Your task to perform on an android device: Search for seafood restaurants on Google Maps Image 0: 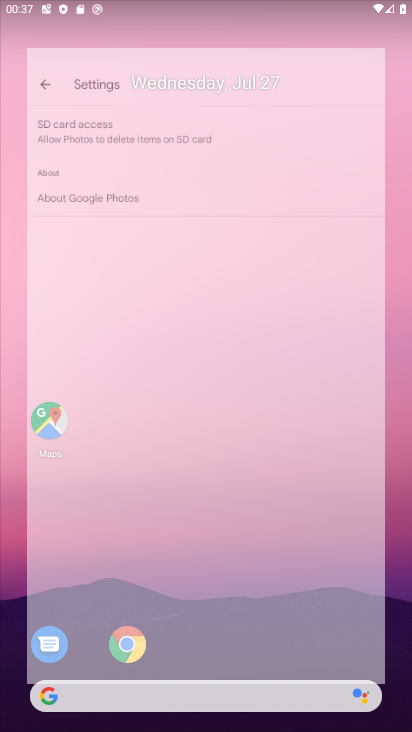
Step 0: drag from (223, 625) to (223, 392)
Your task to perform on an android device: Search for seafood restaurants on Google Maps Image 1: 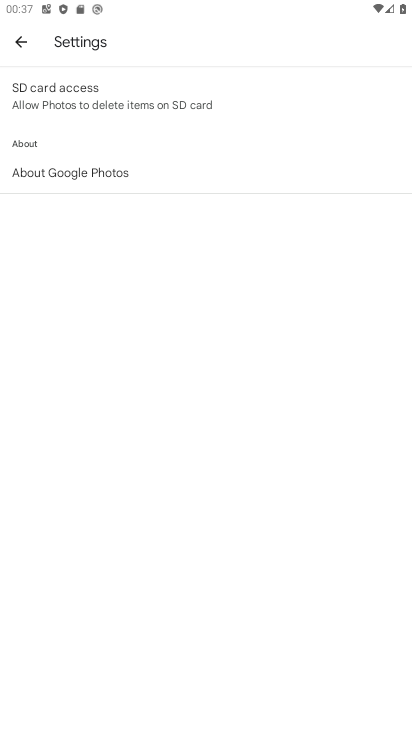
Step 1: click (19, 42)
Your task to perform on an android device: Search for seafood restaurants on Google Maps Image 2: 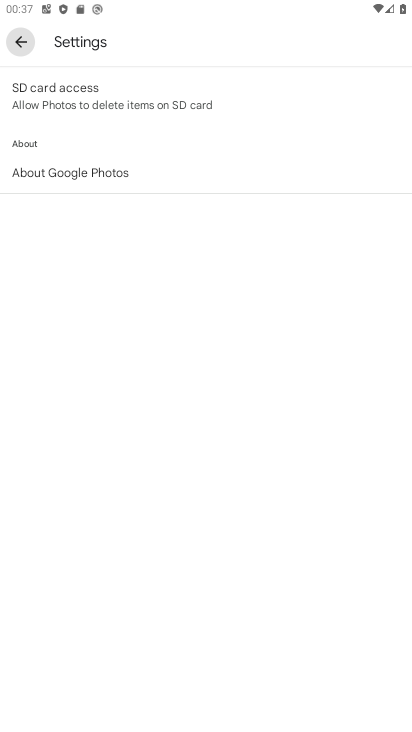
Step 2: click (19, 42)
Your task to perform on an android device: Search for seafood restaurants on Google Maps Image 3: 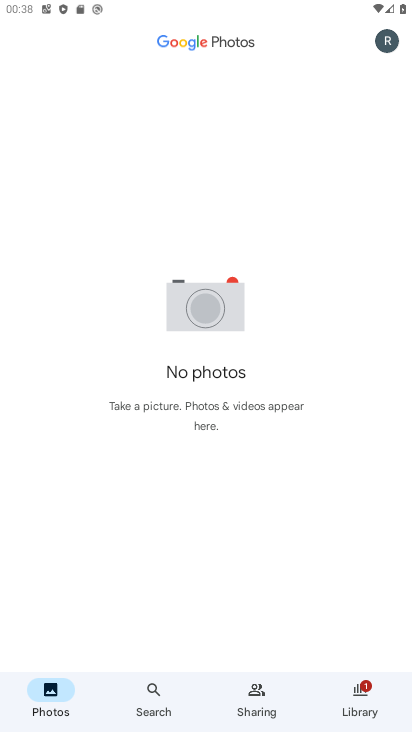
Step 3: press back button
Your task to perform on an android device: Search for seafood restaurants on Google Maps Image 4: 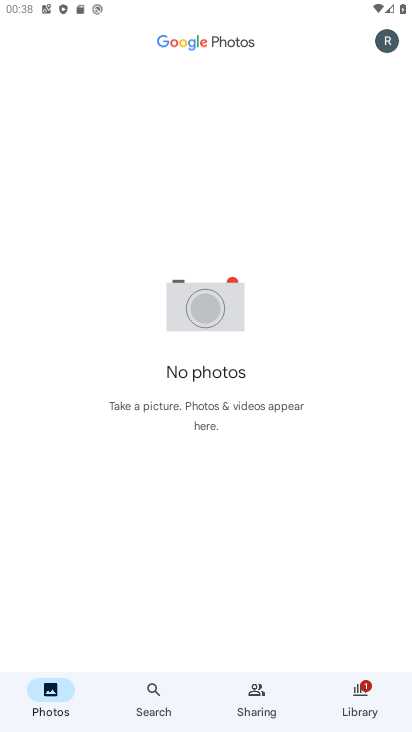
Step 4: press back button
Your task to perform on an android device: Search for seafood restaurants on Google Maps Image 5: 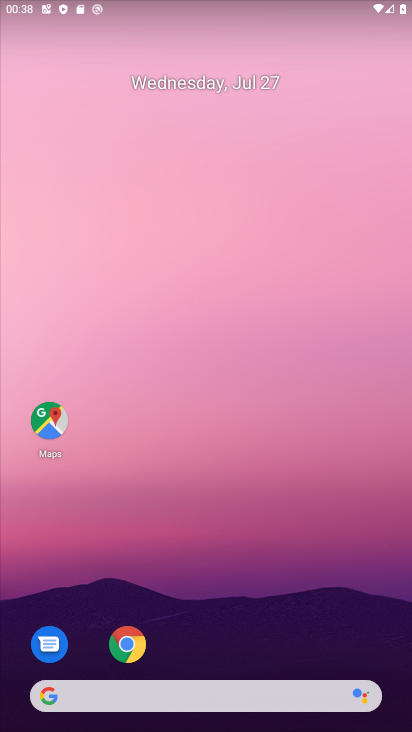
Step 5: drag from (244, 665) to (234, 14)
Your task to perform on an android device: Search for seafood restaurants on Google Maps Image 6: 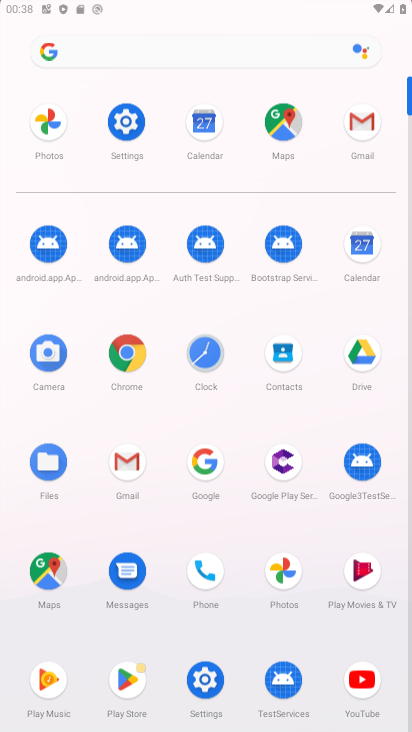
Step 6: drag from (216, 481) to (236, 114)
Your task to perform on an android device: Search for seafood restaurants on Google Maps Image 7: 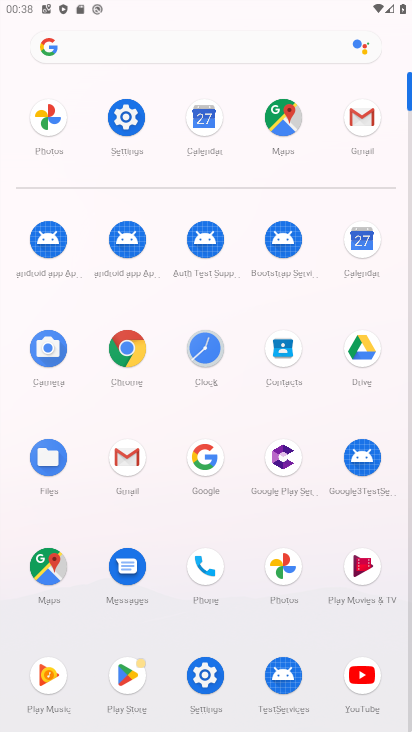
Step 7: click (62, 567)
Your task to perform on an android device: Search for seafood restaurants on Google Maps Image 8: 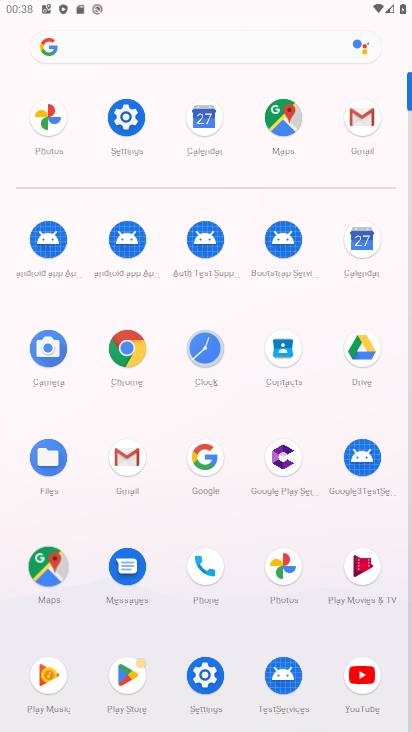
Step 8: click (58, 563)
Your task to perform on an android device: Search for seafood restaurants on Google Maps Image 9: 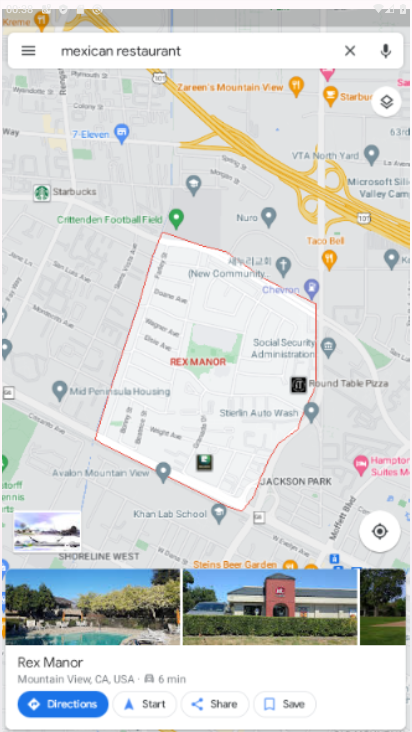
Step 9: click (58, 563)
Your task to perform on an android device: Search for seafood restaurants on Google Maps Image 10: 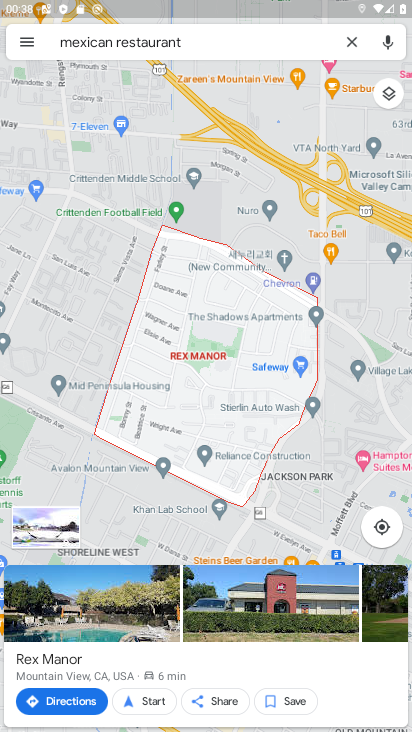
Step 10: click (101, 37)
Your task to perform on an android device: Search for seafood restaurants on Google Maps Image 11: 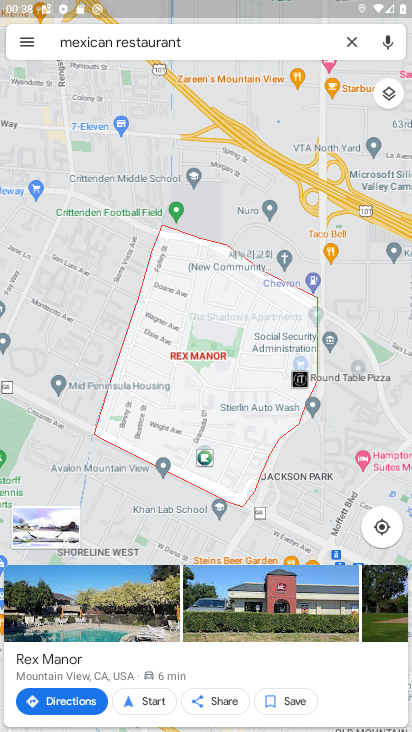
Step 11: click (101, 37)
Your task to perform on an android device: Search for seafood restaurants on Google Maps Image 12: 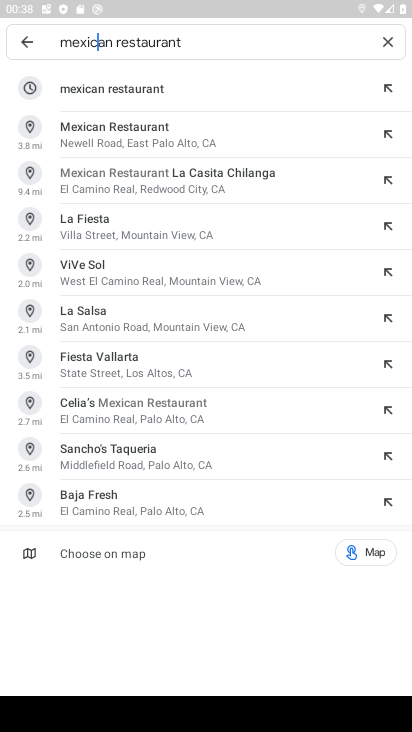
Step 12: click (383, 42)
Your task to perform on an android device: Search for seafood restaurants on Google Maps Image 13: 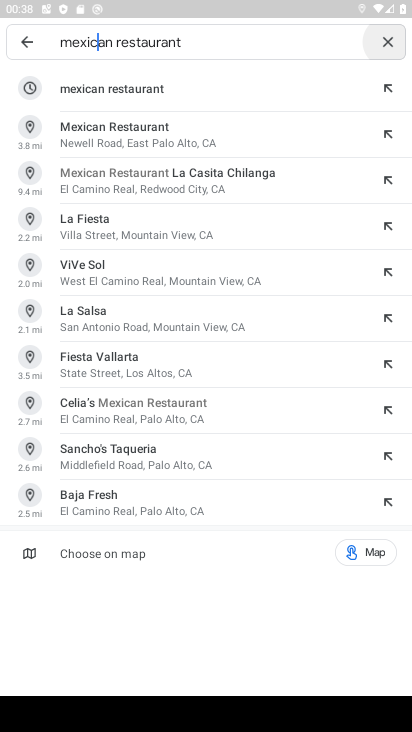
Step 13: click (378, 37)
Your task to perform on an android device: Search for seafood restaurants on Google Maps Image 14: 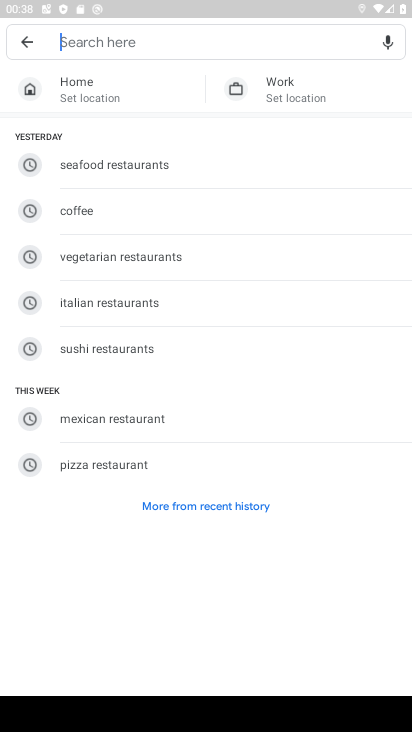
Step 14: click (381, 39)
Your task to perform on an android device: Search for seafood restaurants on Google Maps Image 15: 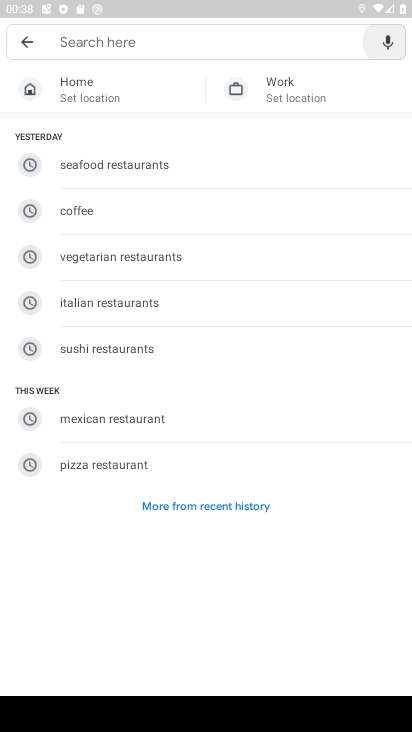
Step 15: click (383, 39)
Your task to perform on an android device: Search for seafood restaurants on Google Maps Image 16: 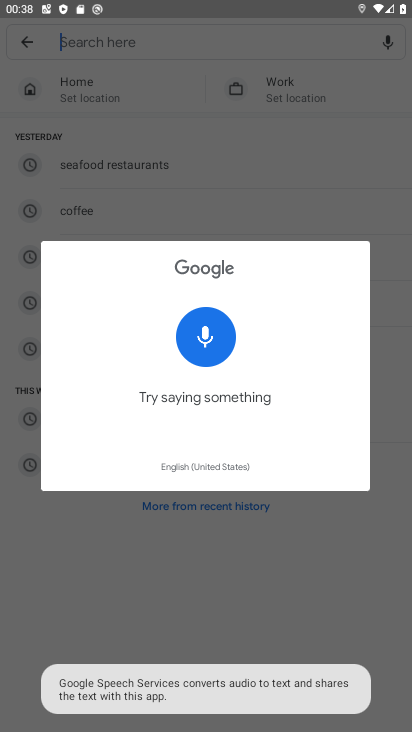
Step 16: click (273, 207)
Your task to perform on an android device: Search for seafood restaurants on Google Maps Image 17: 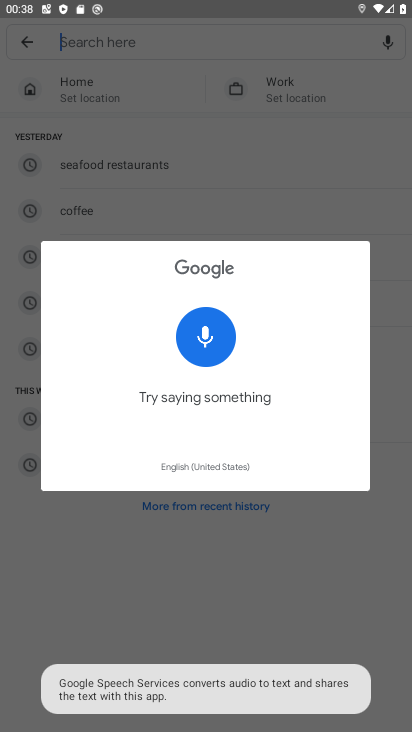
Step 17: click (273, 207)
Your task to perform on an android device: Search for seafood restaurants on Google Maps Image 18: 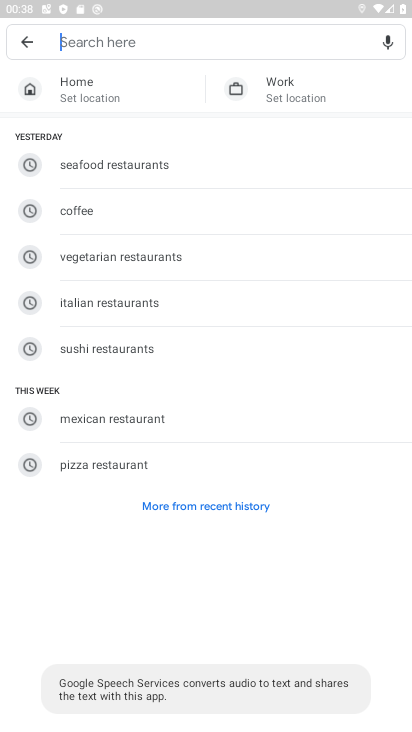
Step 18: click (273, 207)
Your task to perform on an android device: Search for seafood restaurants on Google Maps Image 19: 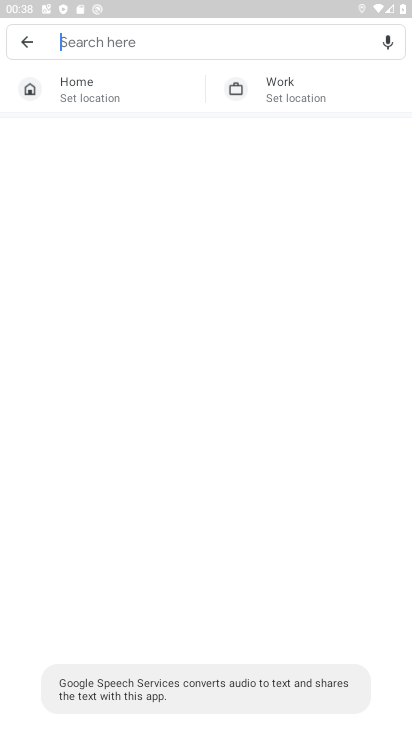
Step 19: click (273, 202)
Your task to perform on an android device: Search for seafood restaurants on Google Maps Image 20: 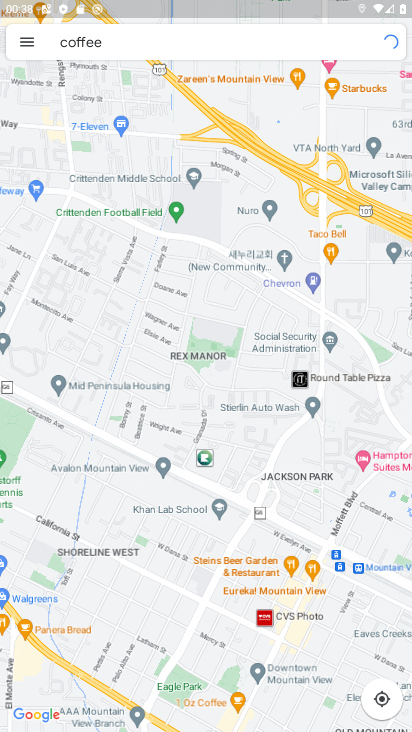
Step 20: click (123, 41)
Your task to perform on an android device: Search for seafood restaurants on Google Maps Image 21: 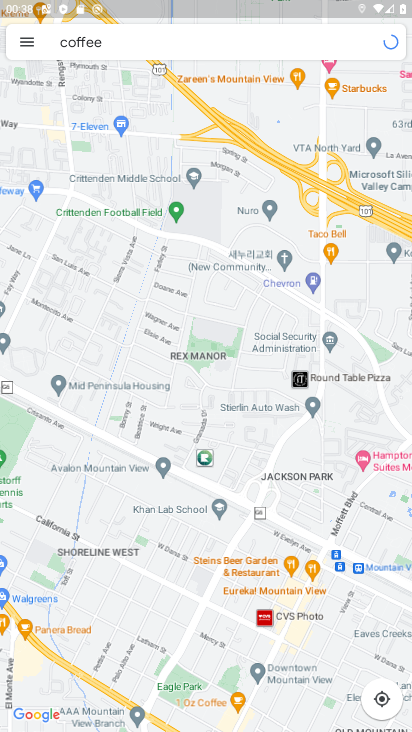
Step 21: click (121, 45)
Your task to perform on an android device: Search for seafood restaurants on Google Maps Image 22: 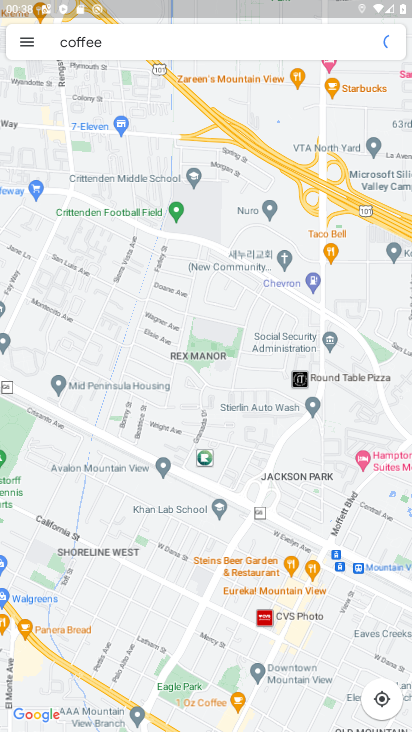
Step 22: click (121, 45)
Your task to perform on an android device: Search for seafood restaurants on Google Maps Image 23: 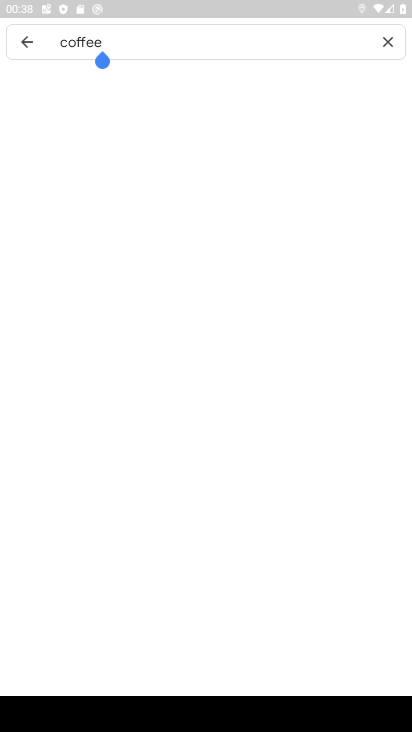
Step 23: click (399, 42)
Your task to perform on an android device: Search for seafood restaurants on Google Maps Image 24: 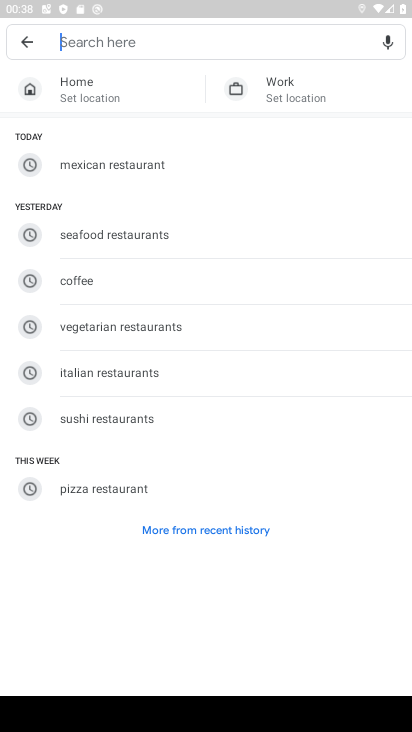
Step 24: click (75, 235)
Your task to perform on an android device: Search for seafood restaurants on Google Maps Image 25: 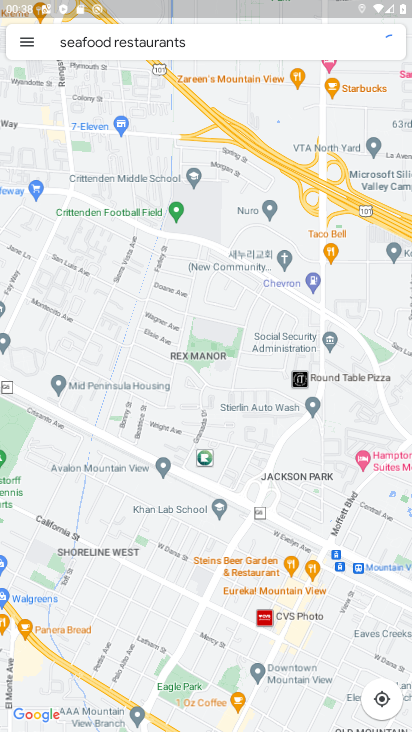
Step 25: task complete